Your task to perform on an android device: Add "razer blackwidow" to the cart on bestbuy.com, then select checkout. Image 0: 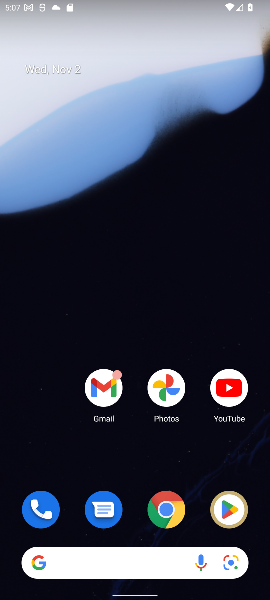
Step 0: click (104, 567)
Your task to perform on an android device: Add "razer blackwidow" to the cart on bestbuy.com, then select checkout. Image 1: 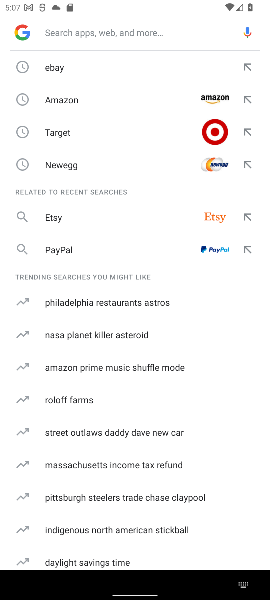
Step 1: type "bestbuy"
Your task to perform on an android device: Add "razer blackwidow" to the cart on bestbuy.com, then select checkout. Image 2: 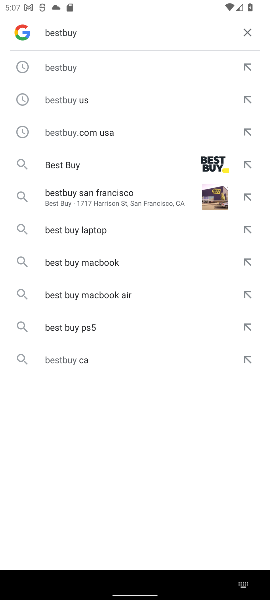
Step 2: click (67, 163)
Your task to perform on an android device: Add "razer blackwidow" to the cart on bestbuy.com, then select checkout. Image 3: 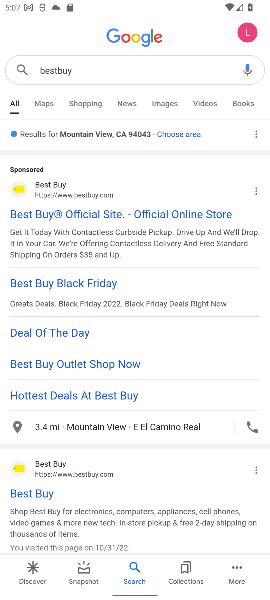
Step 3: click (24, 496)
Your task to perform on an android device: Add "razer blackwidow" to the cart on bestbuy.com, then select checkout. Image 4: 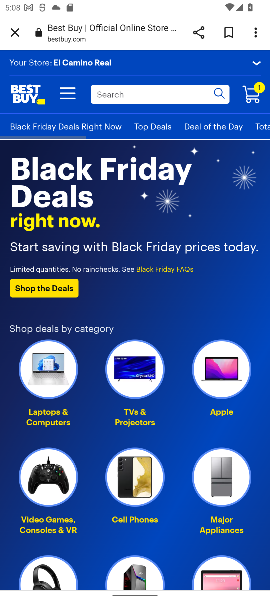
Step 4: click (135, 96)
Your task to perform on an android device: Add "razer blackwidow" to the cart on bestbuy.com, then select checkout. Image 5: 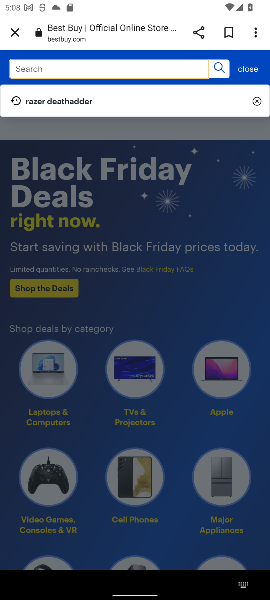
Step 5: click (34, 65)
Your task to perform on an android device: Add "razer blackwidow" to the cart on bestbuy.com, then select checkout. Image 6: 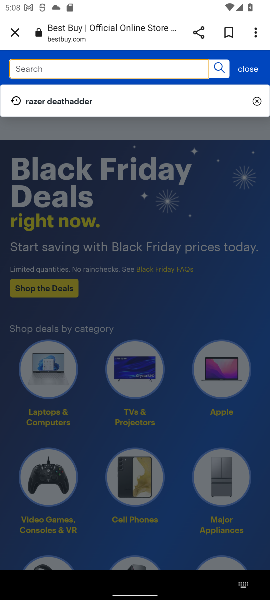
Step 6: type "razer blackwidow"
Your task to perform on an android device: Add "razer blackwidow" to the cart on bestbuy.com, then select checkout. Image 7: 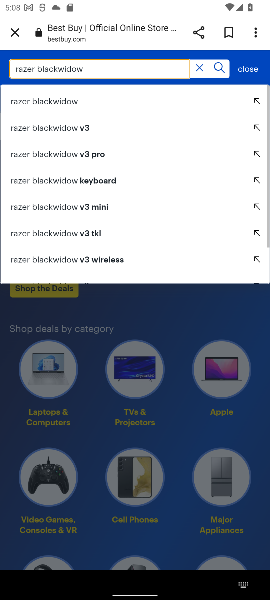
Step 7: click (217, 65)
Your task to perform on an android device: Add "razer blackwidow" to the cart on bestbuy.com, then select checkout. Image 8: 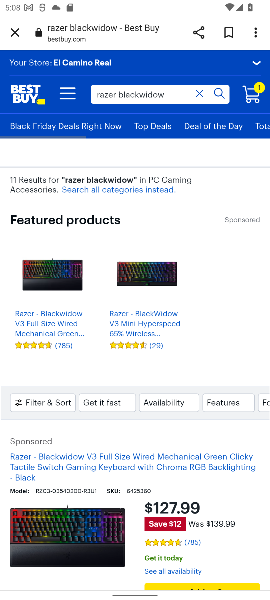
Step 8: drag from (171, 439) to (139, 251)
Your task to perform on an android device: Add "razer blackwidow" to the cart on bestbuy.com, then select checkout. Image 9: 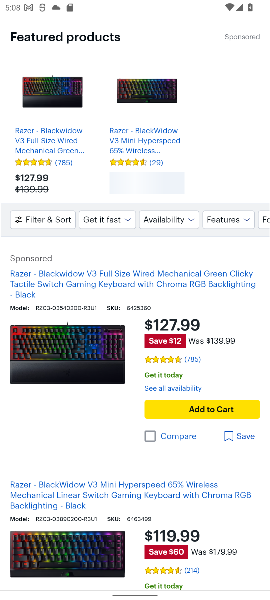
Step 9: click (195, 406)
Your task to perform on an android device: Add "razer blackwidow" to the cart on bestbuy.com, then select checkout. Image 10: 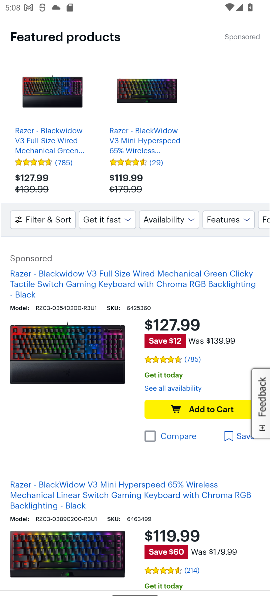
Step 10: click (195, 405)
Your task to perform on an android device: Add "razer blackwidow" to the cart on bestbuy.com, then select checkout. Image 11: 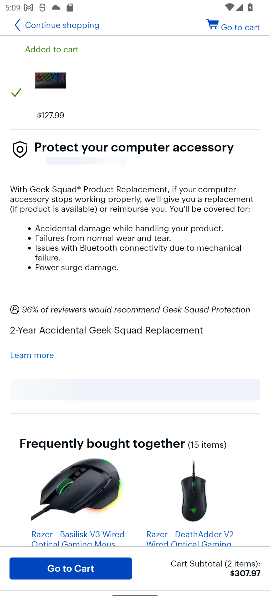
Step 11: click (73, 567)
Your task to perform on an android device: Add "razer blackwidow" to the cart on bestbuy.com, then select checkout. Image 12: 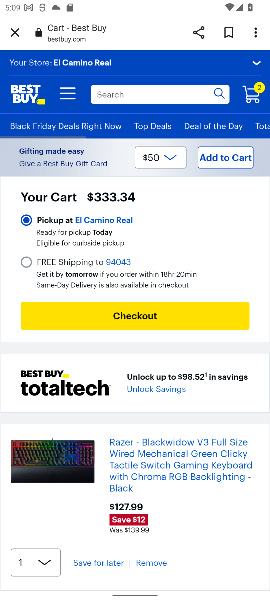
Step 12: click (141, 315)
Your task to perform on an android device: Add "razer blackwidow" to the cart on bestbuy.com, then select checkout. Image 13: 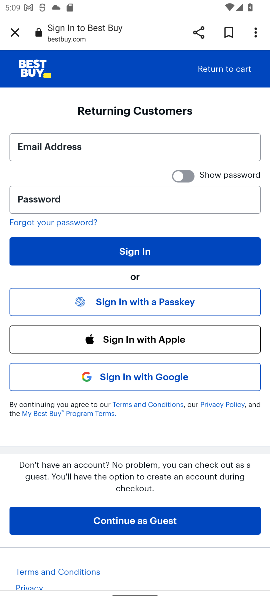
Step 13: task complete